Your task to perform on an android device: check storage Image 0: 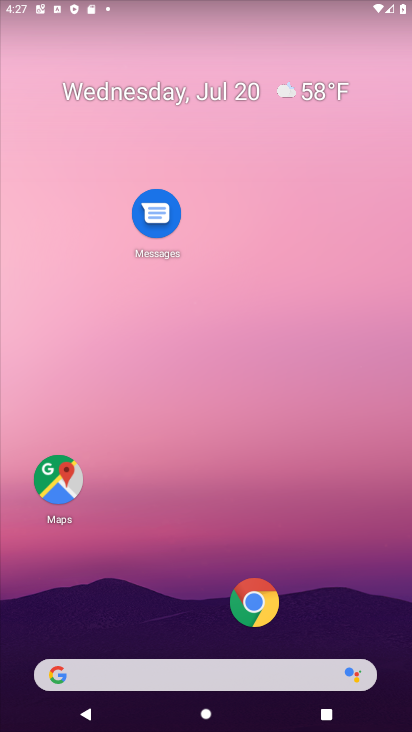
Step 0: drag from (186, 597) to (198, 135)
Your task to perform on an android device: check storage Image 1: 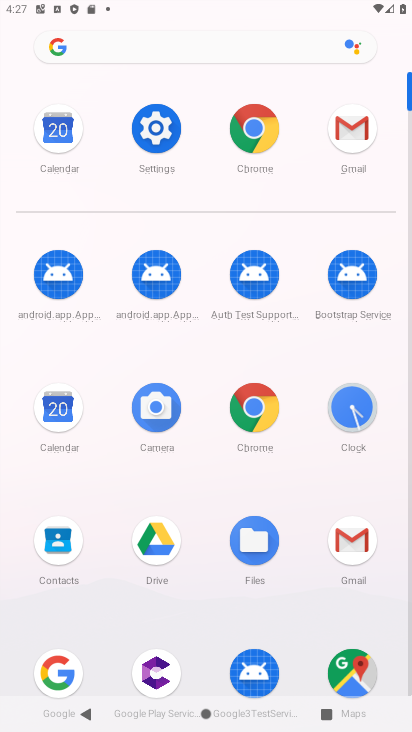
Step 1: click (152, 131)
Your task to perform on an android device: check storage Image 2: 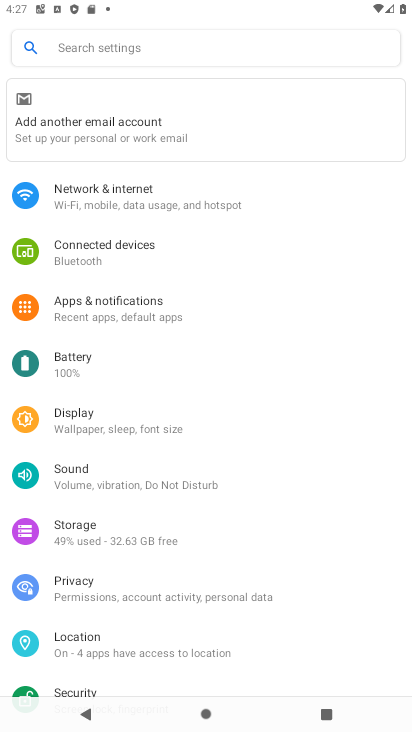
Step 2: click (74, 537)
Your task to perform on an android device: check storage Image 3: 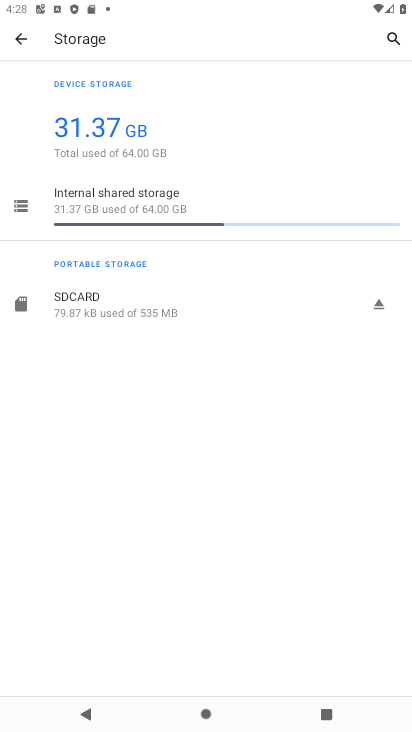
Step 3: task complete